Your task to perform on an android device: show emergency info Image 0: 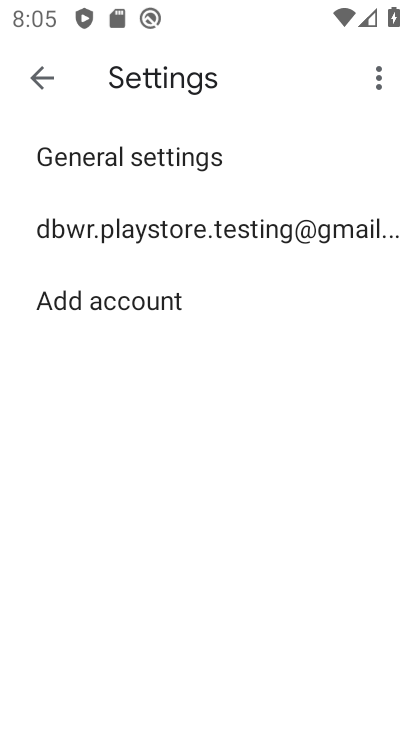
Step 0: press home button
Your task to perform on an android device: show emergency info Image 1: 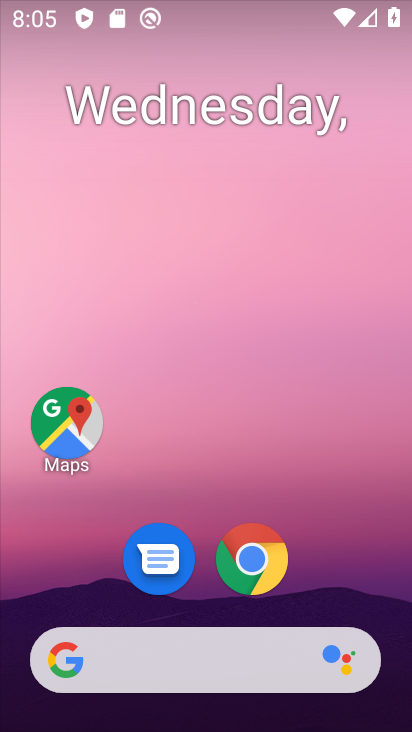
Step 1: drag from (268, 540) to (305, 60)
Your task to perform on an android device: show emergency info Image 2: 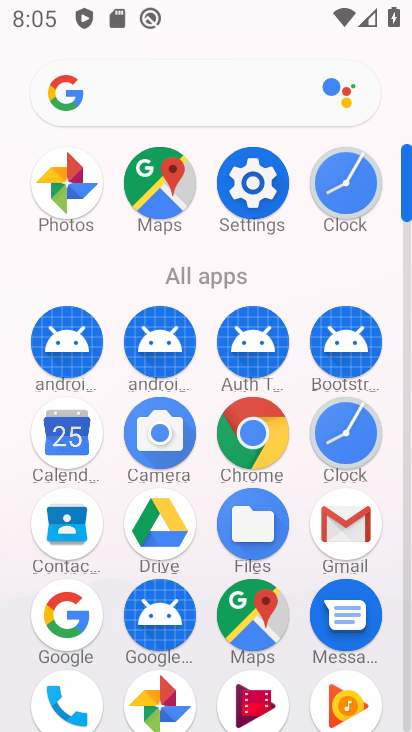
Step 2: click (265, 188)
Your task to perform on an android device: show emergency info Image 3: 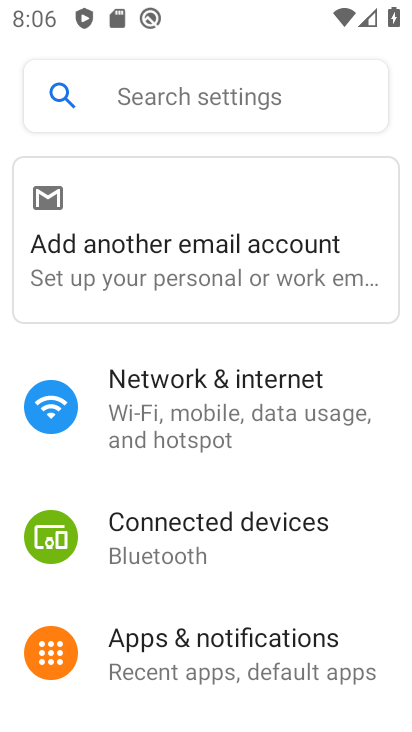
Step 3: drag from (191, 579) to (191, 370)
Your task to perform on an android device: show emergency info Image 4: 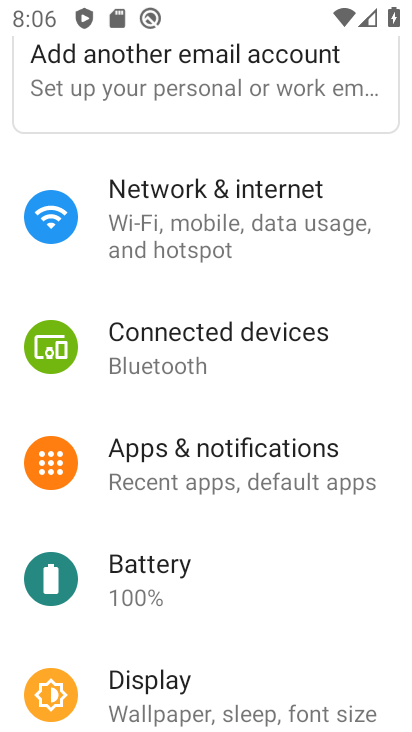
Step 4: drag from (193, 591) to (228, 285)
Your task to perform on an android device: show emergency info Image 5: 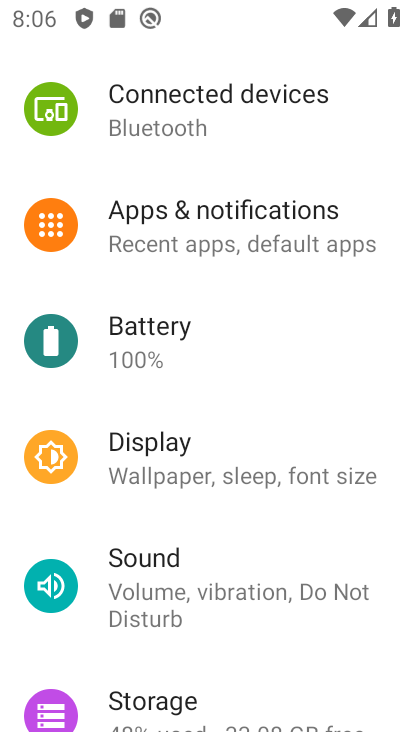
Step 5: drag from (209, 491) to (236, 81)
Your task to perform on an android device: show emergency info Image 6: 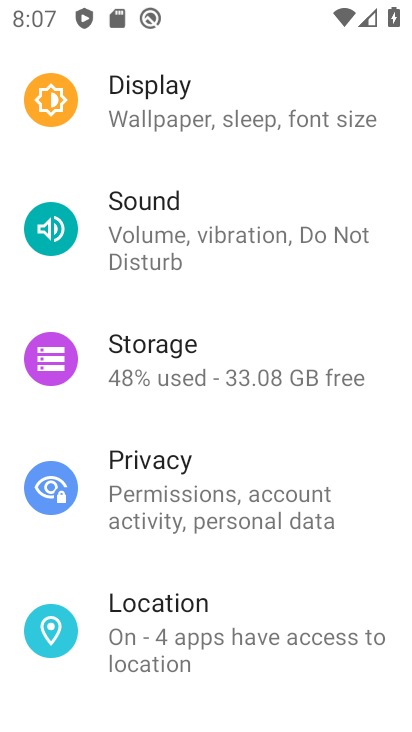
Step 6: drag from (245, 514) to (301, 86)
Your task to perform on an android device: show emergency info Image 7: 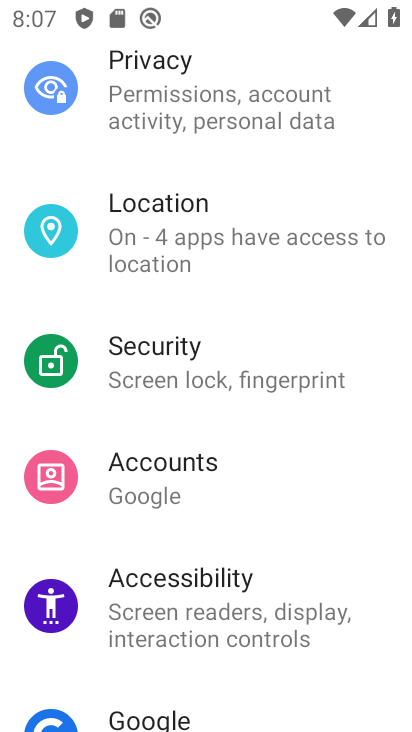
Step 7: drag from (192, 593) to (182, 58)
Your task to perform on an android device: show emergency info Image 8: 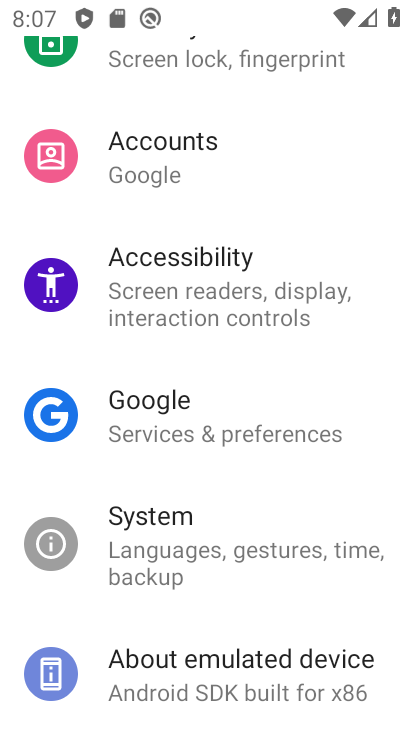
Step 8: drag from (180, 534) to (253, 18)
Your task to perform on an android device: show emergency info Image 9: 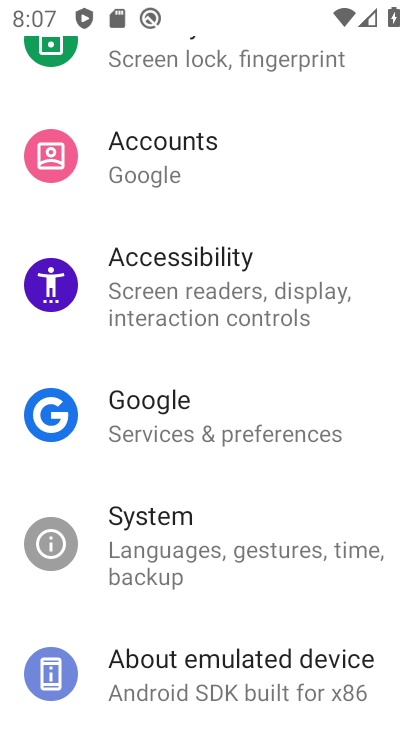
Step 9: click (201, 673)
Your task to perform on an android device: show emergency info Image 10: 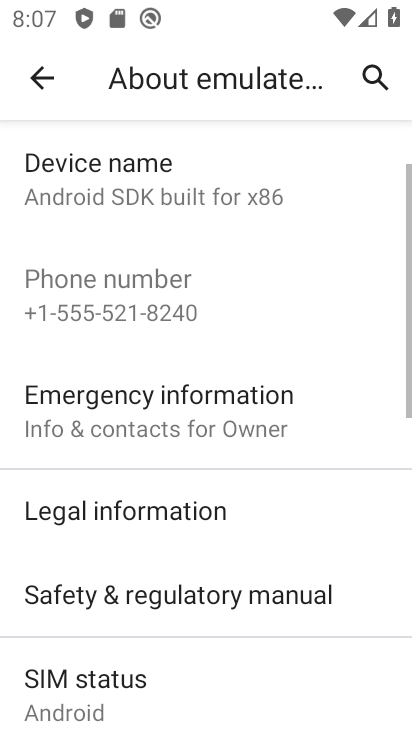
Step 10: click (191, 412)
Your task to perform on an android device: show emergency info Image 11: 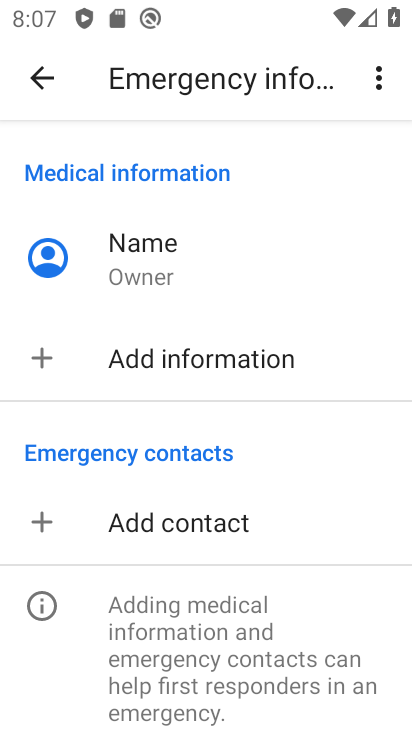
Step 11: task complete